Your task to perform on an android device: Open maps Image 0: 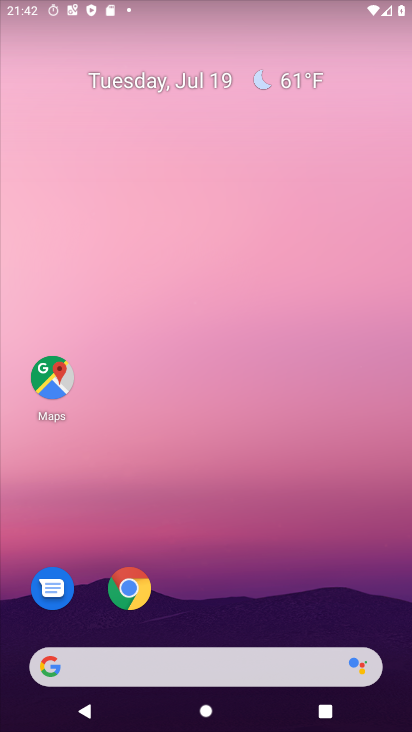
Step 0: drag from (230, 293) to (256, 53)
Your task to perform on an android device: Open maps Image 1: 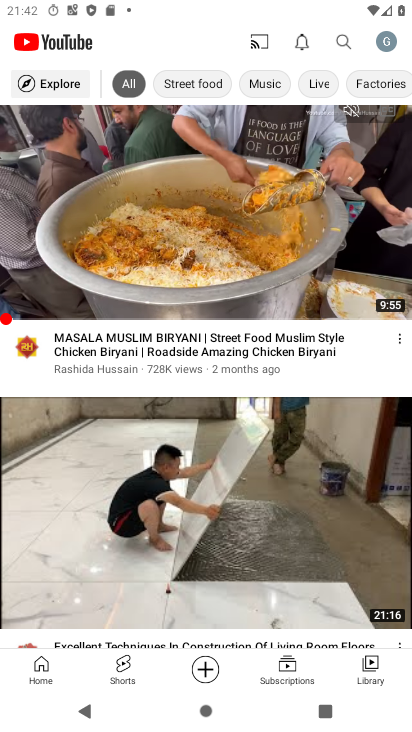
Step 1: press home button
Your task to perform on an android device: Open maps Image 2: 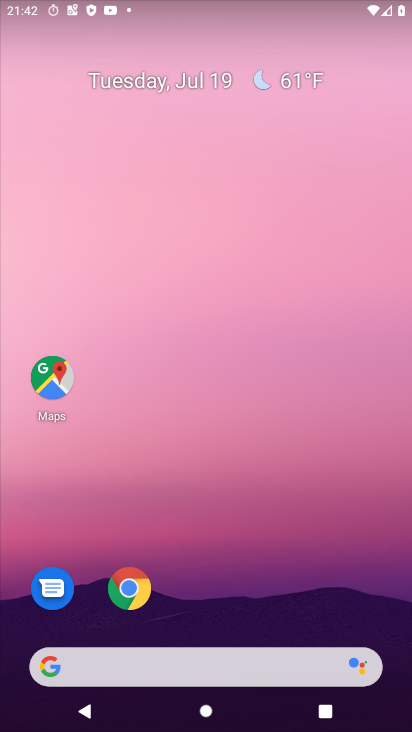
Step 2: click (54, 377)
Your task to perform on an android device: Open maps Image 3: 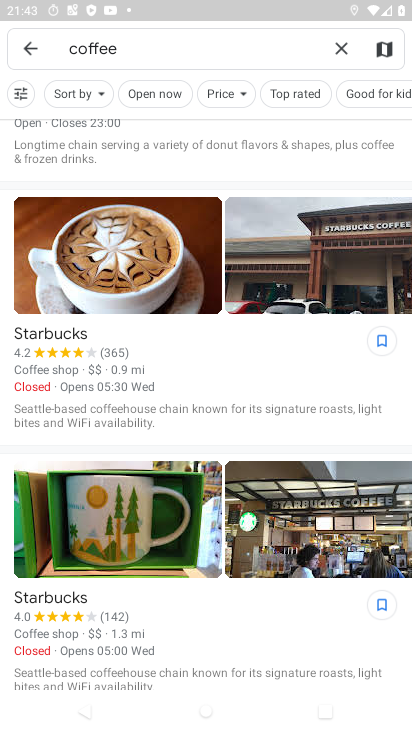
Step 3: click (34, 48)
Your task to perform on an android device: Open maps Image 4: 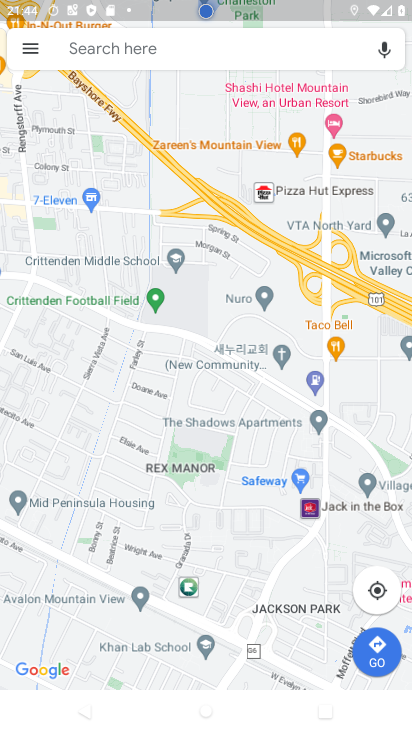
Step 4: task complete